Your task to perform on an android device: toggle sleep mode Image 0: 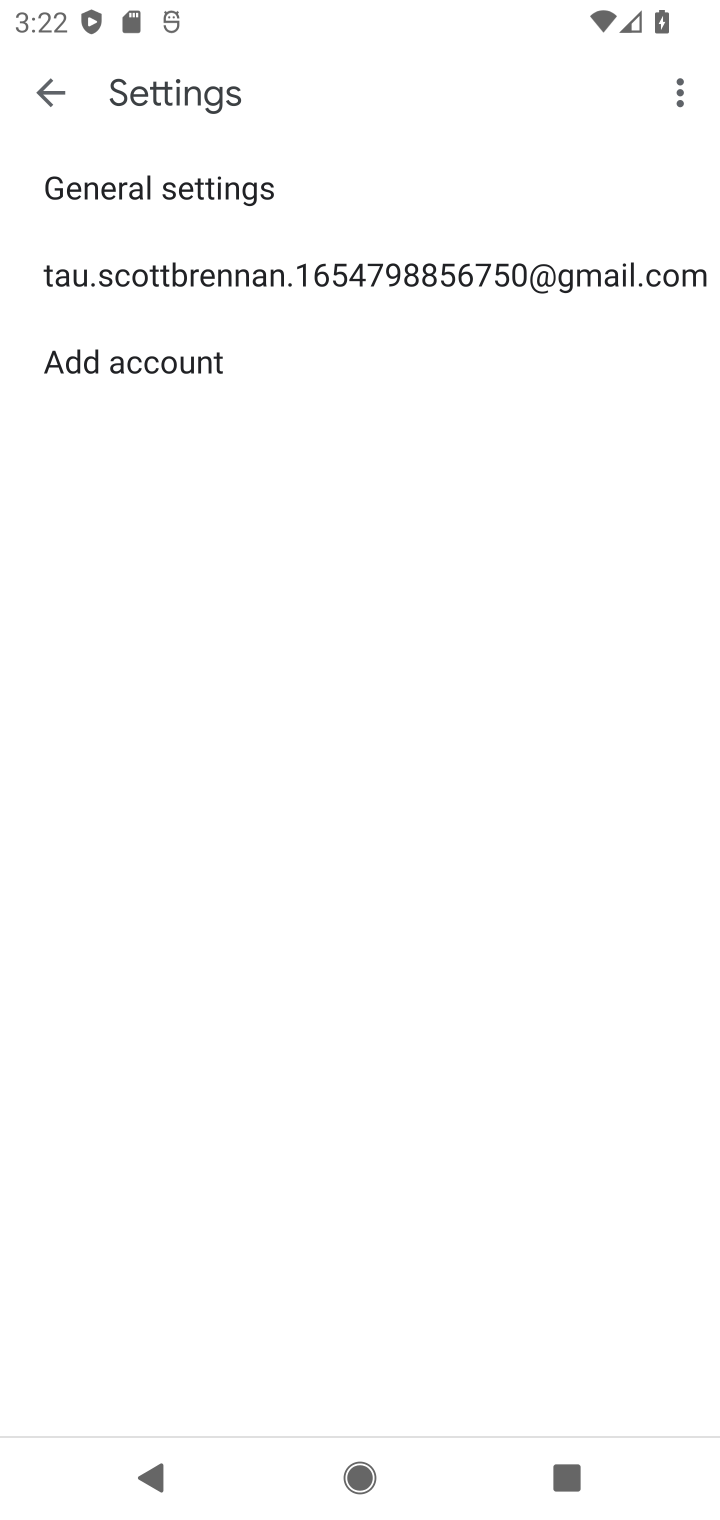
Step 0: press home button
Your task to perform on an android device: toggle sleep mode Image 1: 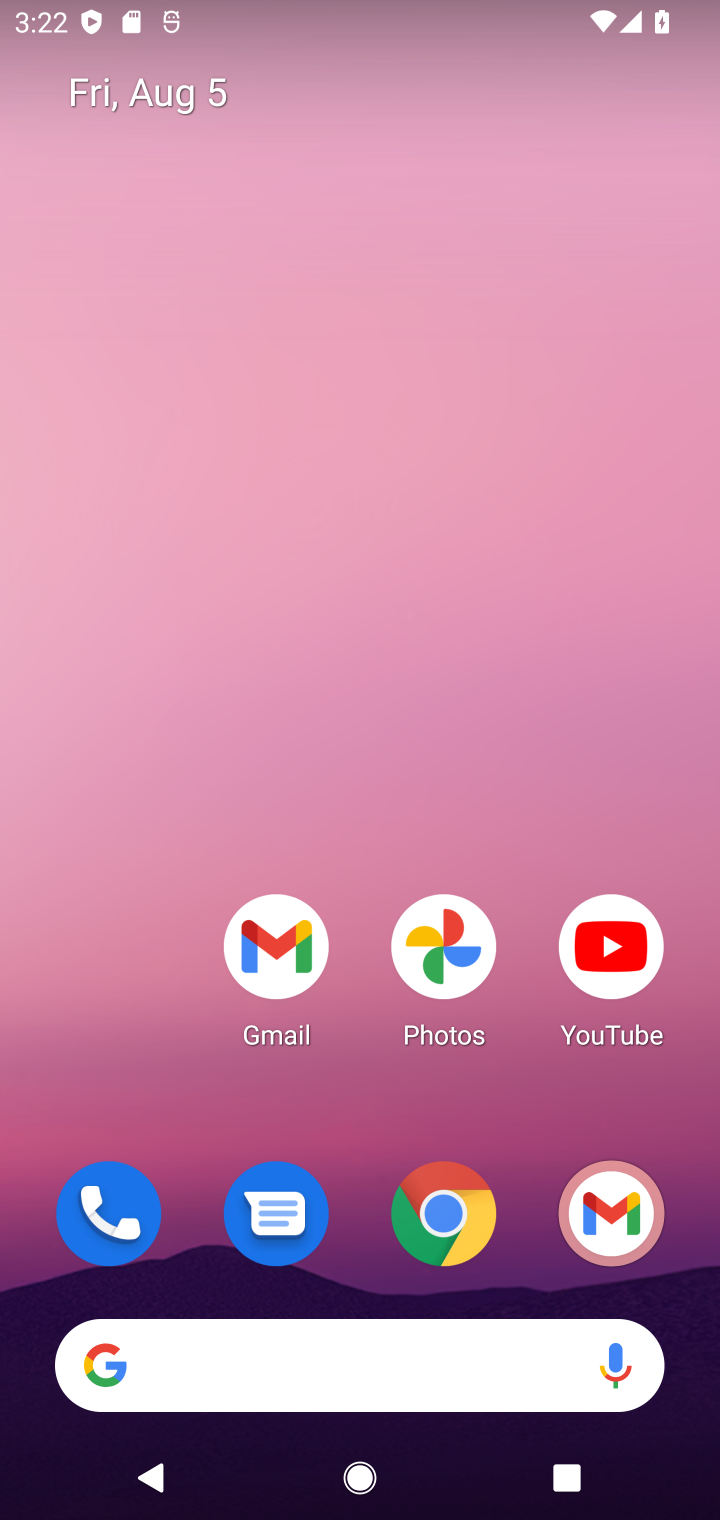
Step 1: drag from (156, 1030) to (174, 33)
Your task to perform on an android device: toggle sleep mode Image 2: 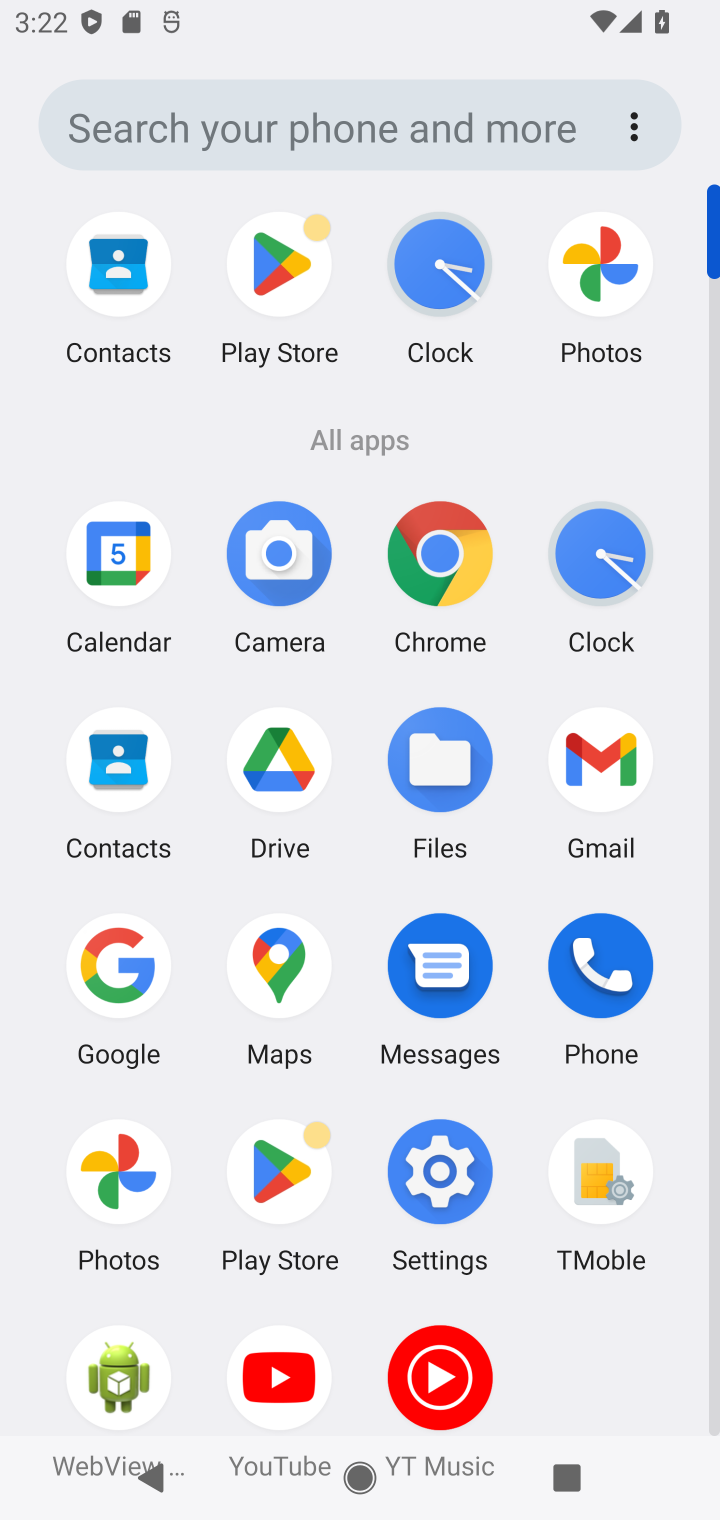
Step 2: click (452, 1174)
Your task to perform on an android device: toggle sleep mode Image 3: 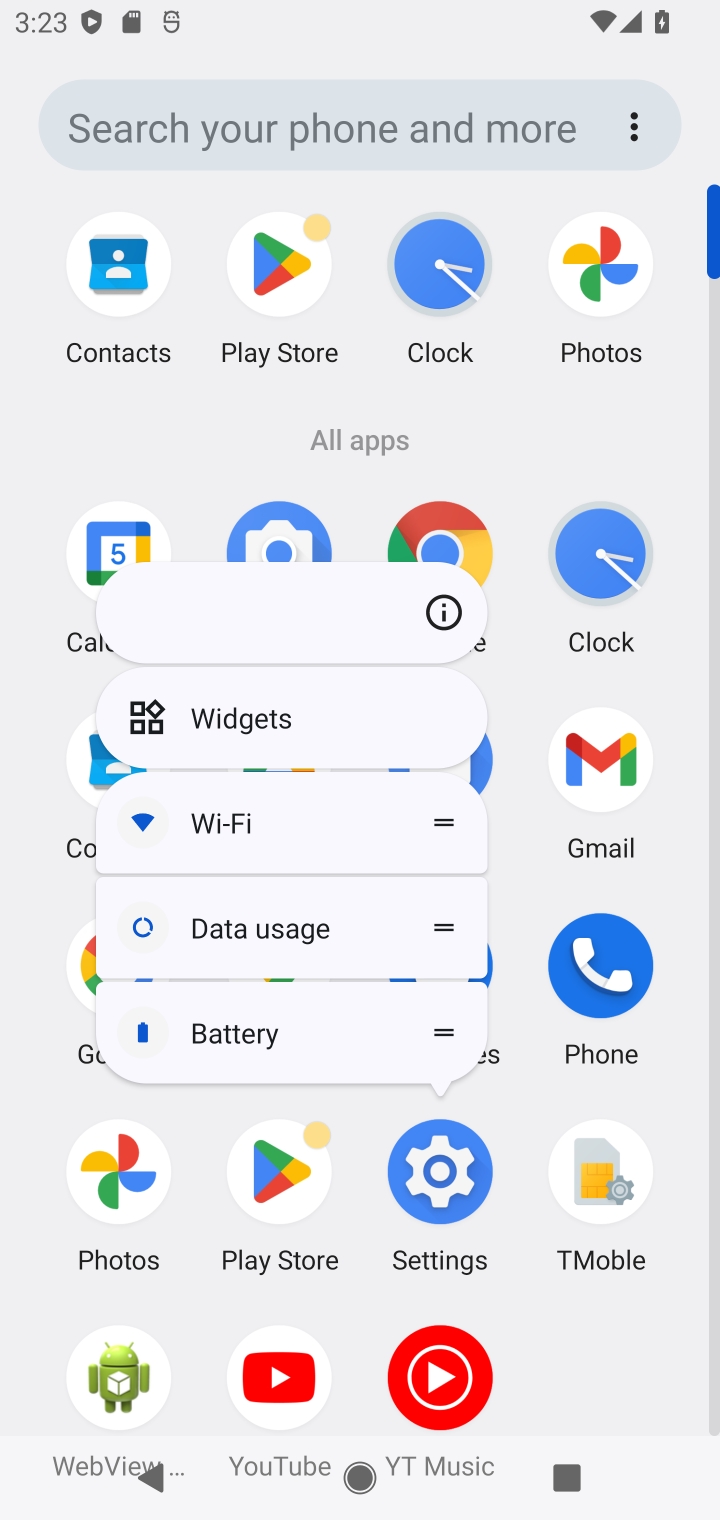
Step 3: click (452, 1177)
Your task to perform on an android device: toggle sleep mode Image 4: 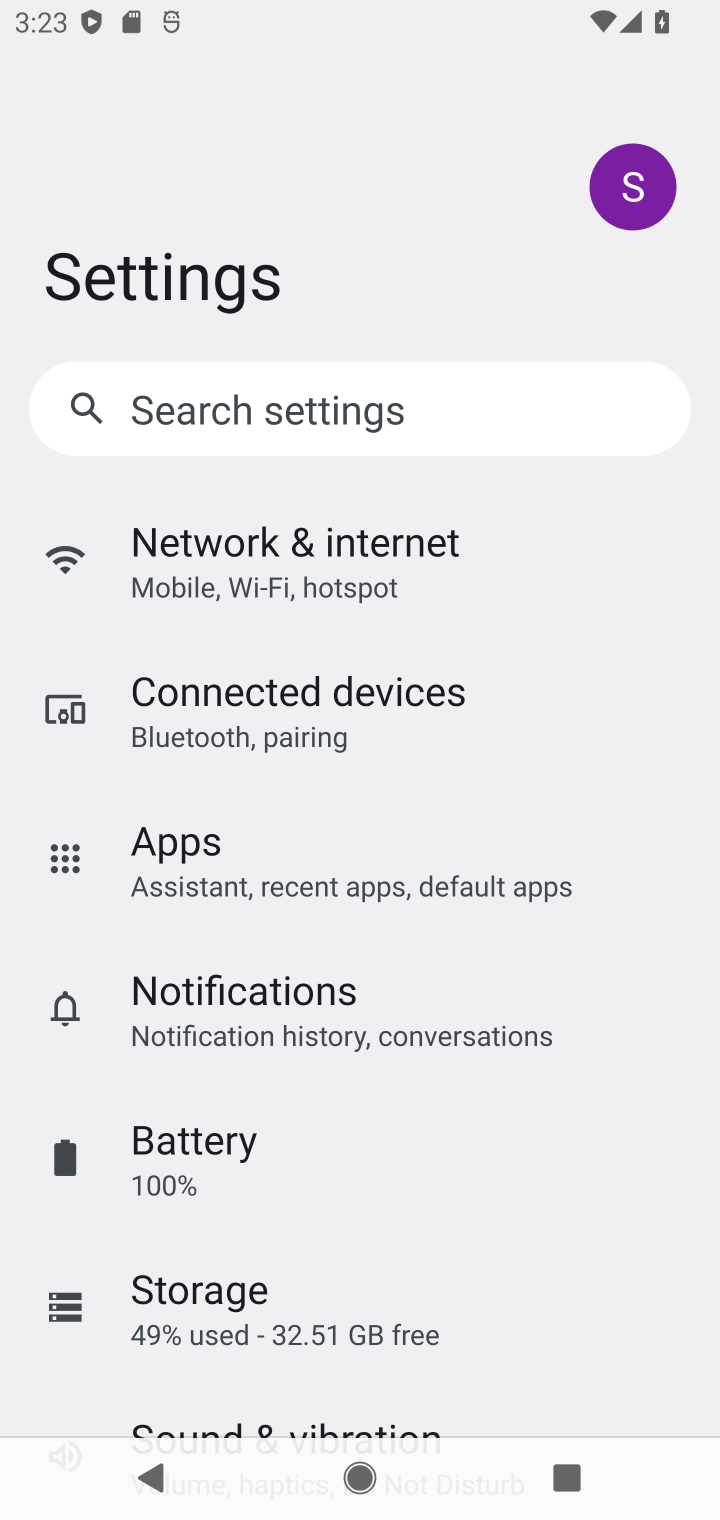
Step 4: drag from (435, 1127) to (390, 247)
Your task to perform on an android device: toggle sleep mode Image 5: 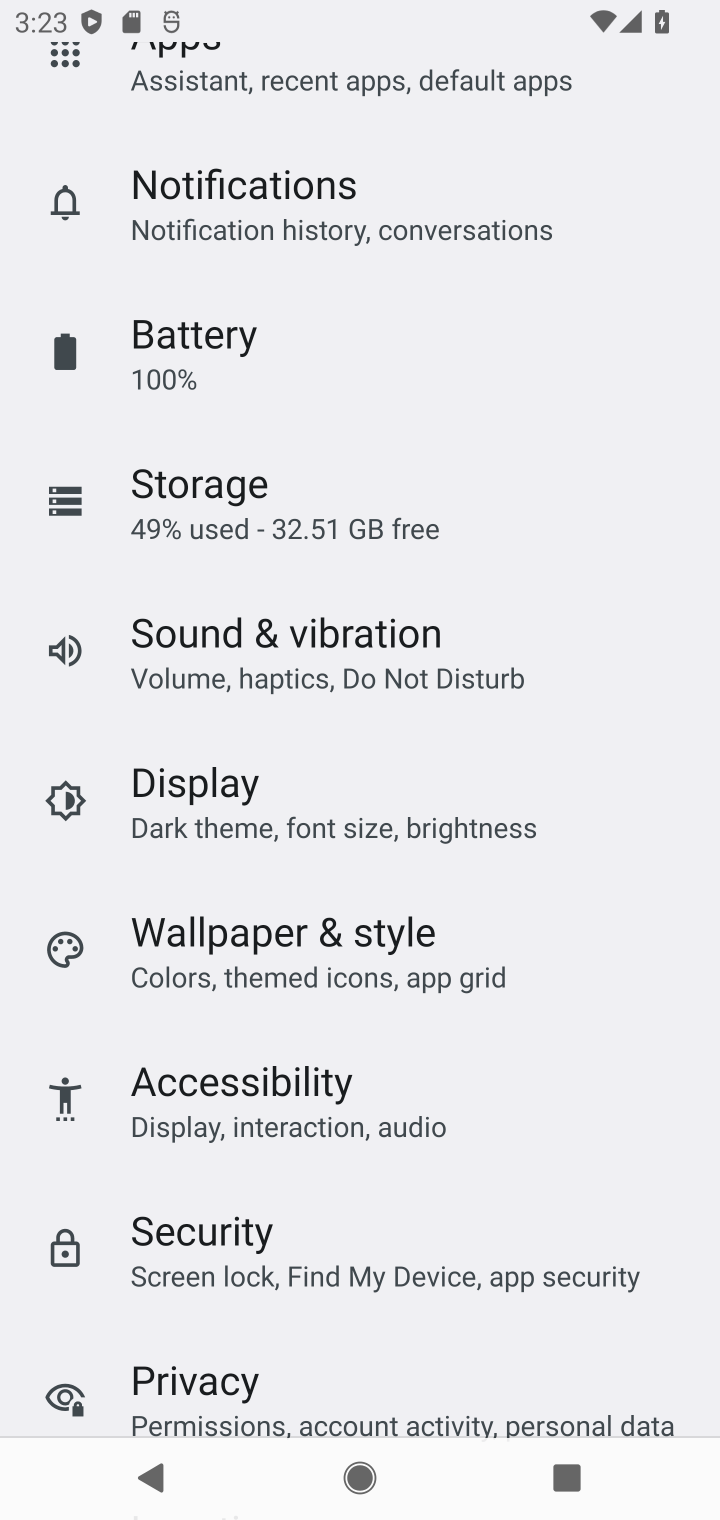
Step 5: click (394, 658)
Your task to perform on an android device: toggle sleep mode Image 6: 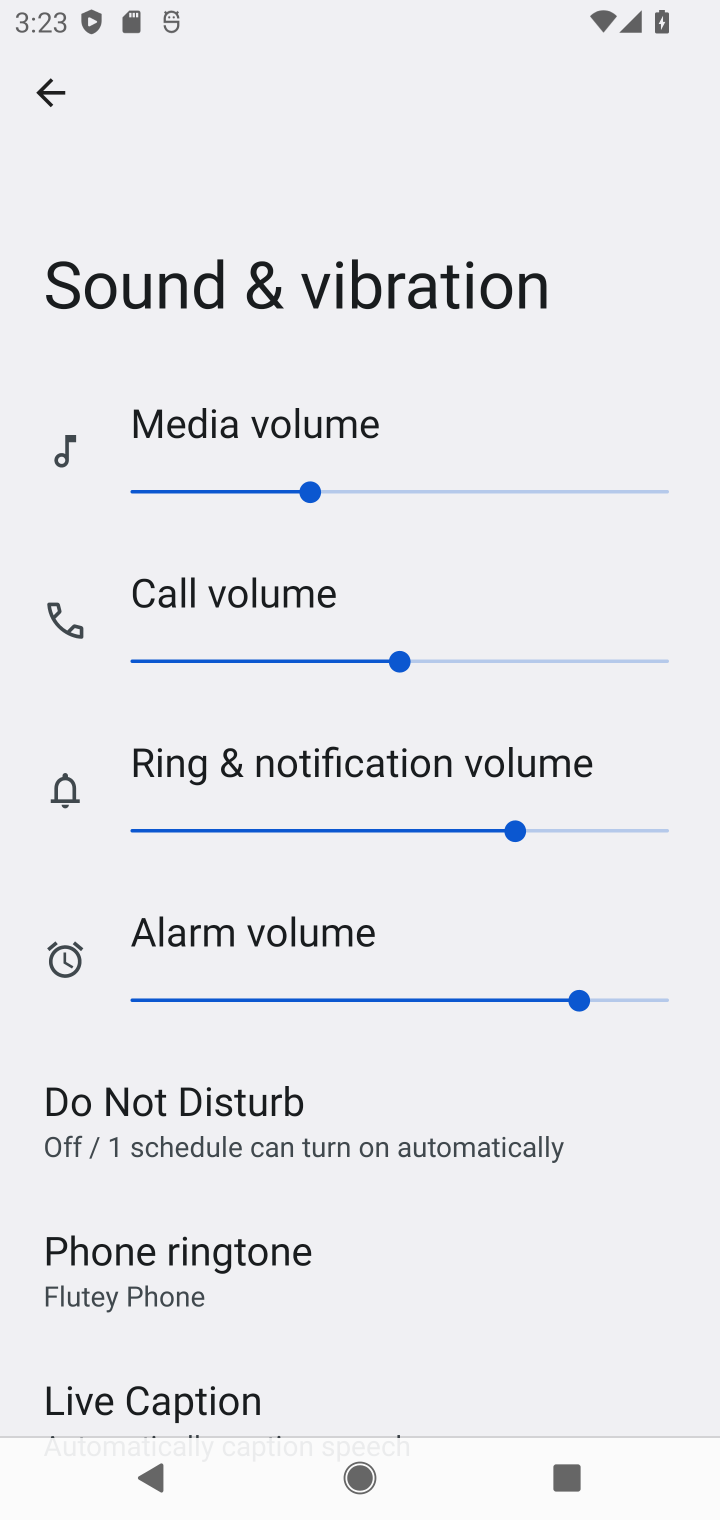
Step 6: click (368, 1118)
Your task to perform on an android device: toggle sleep mode Image 7: 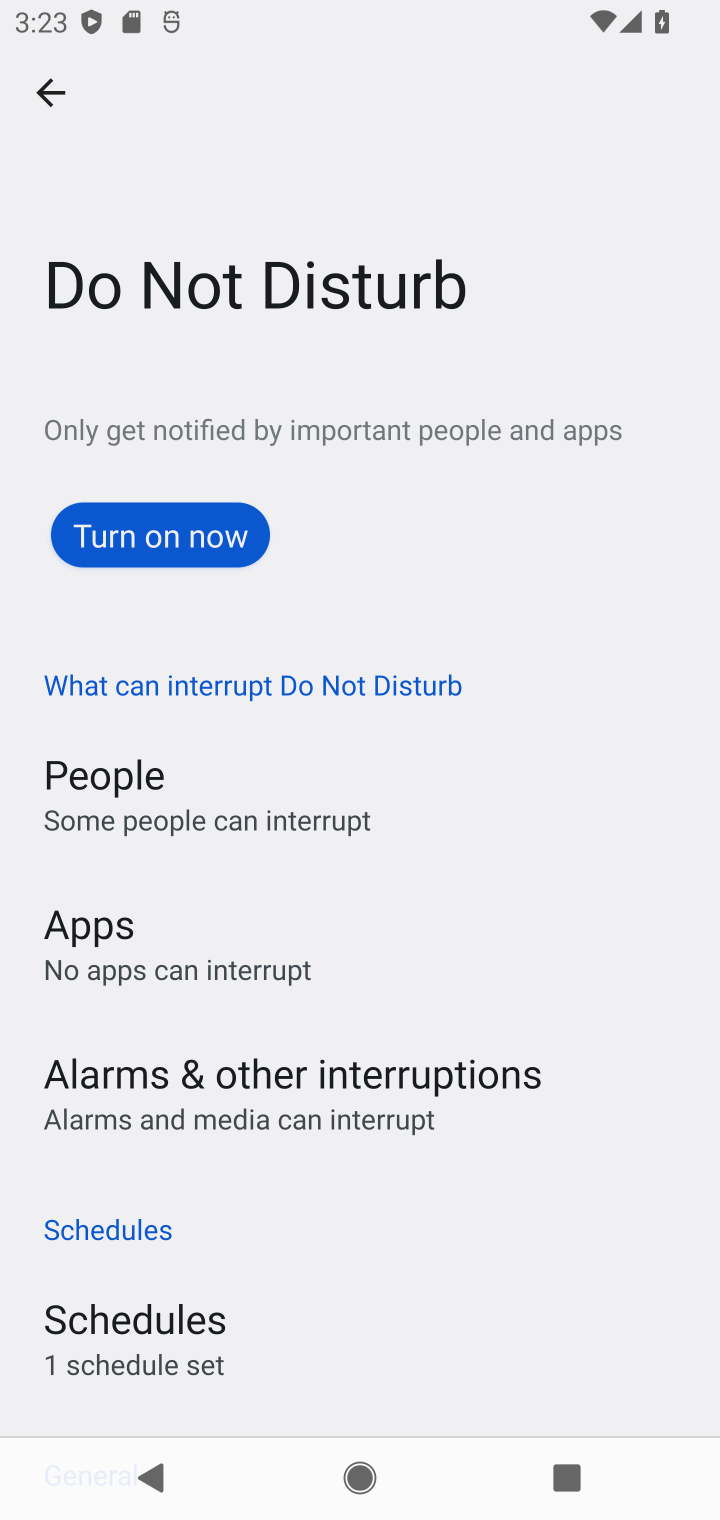
Step 7: click (231, 537)
Your task to perform on an android device: toggle sleep mode Image 8: 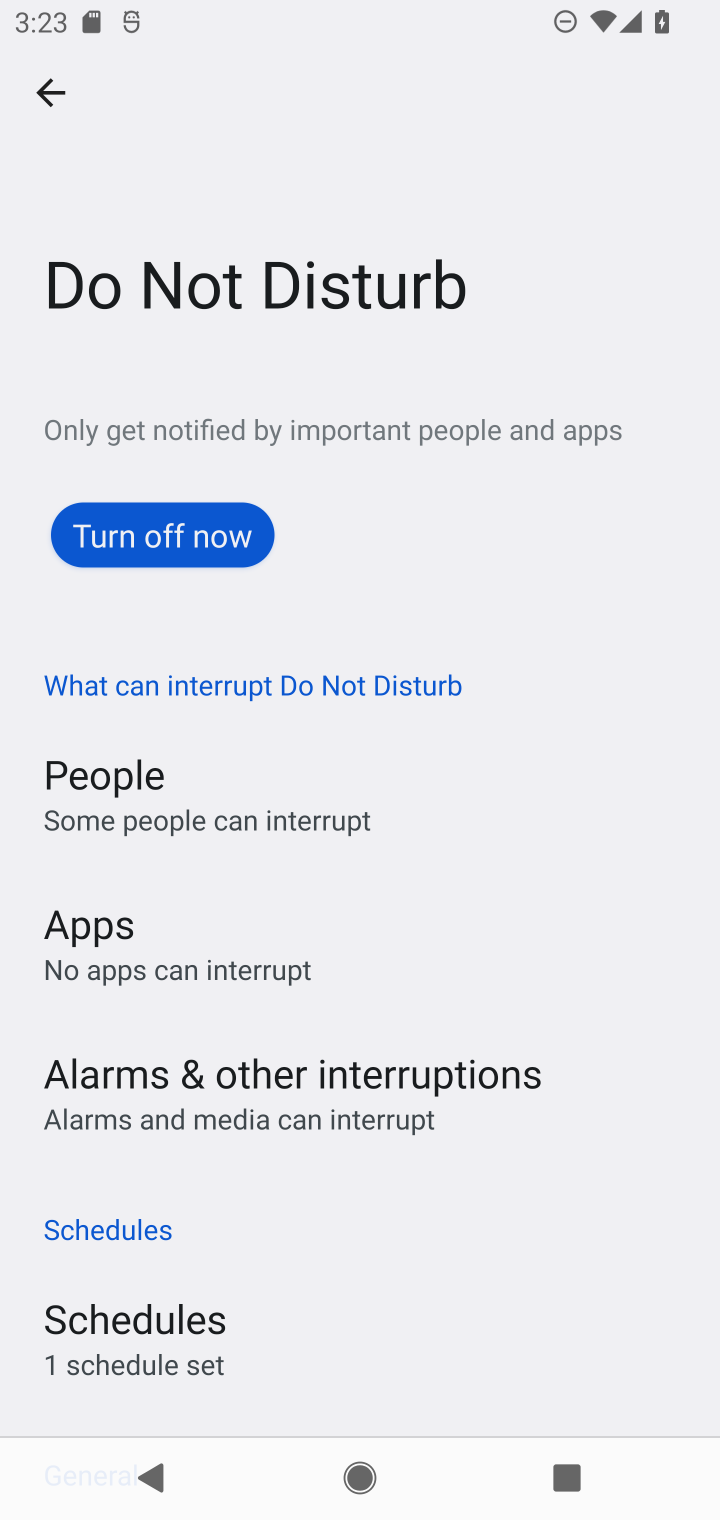
Step 8: task complete